Your task to perform on an android device: Search for vegetarian restaurants on Maps Image 0: 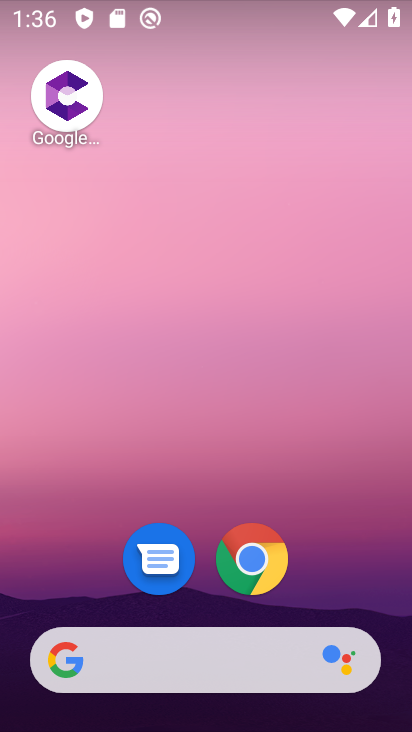
Step 0: drag from (393, 674) to (386, 251)
Your task to perform on an android device: Search for vegetarian restaurants on Maps Image 1: 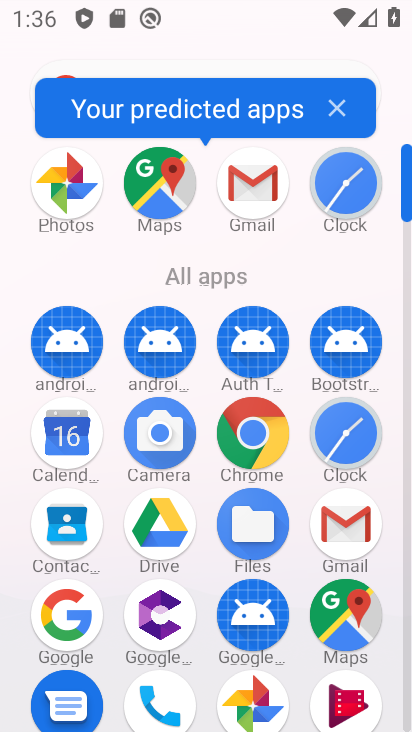
Step 1: click (350, 618)
Your task to perform on an android device: Search for vegetarian restaurants on Maps Image 2: 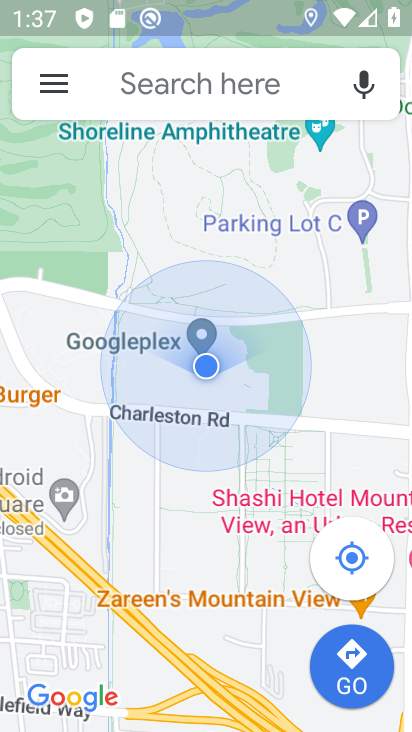
Step 2: click (199, 88)
Your task to perform on an android device: Search for vegetarian restaurants on Maps Image 3: 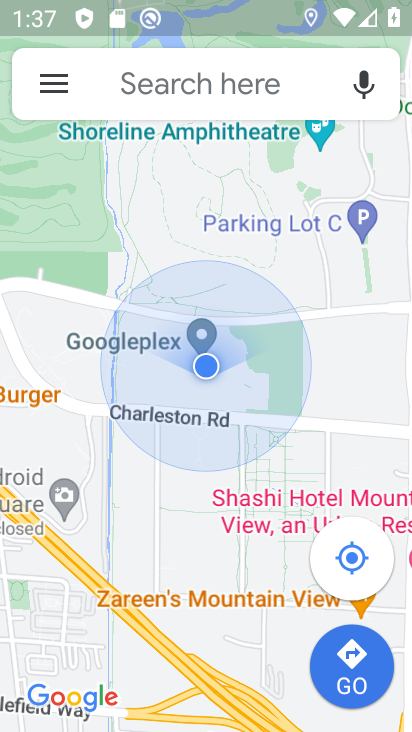
Step 3: click (199, 88)
Your task to perform on an android device: Search for vegetarian restaurants on Maps Image 4: 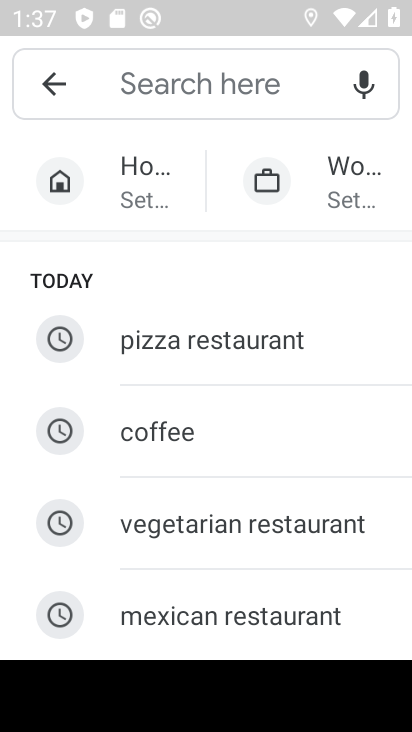
Step 4: type "vegetarian restaurants"
Your task to perform on an android device: Search for vegetarian restaurants on Maps Image 5: 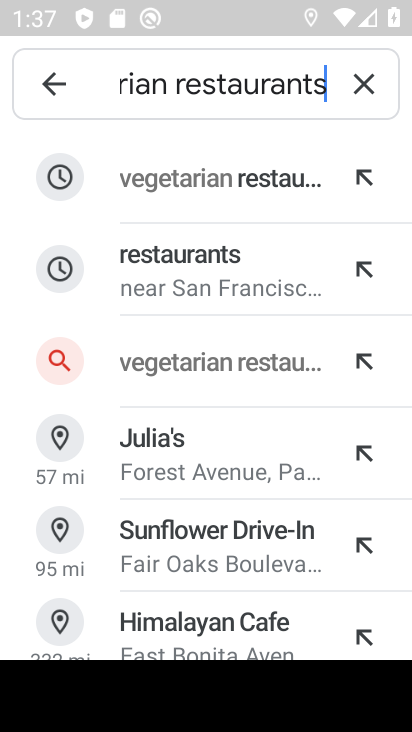
Step 5: click (224, 174)
Your task to perform on an android device: Search for vegetarian restaurants on Maps Image 6: 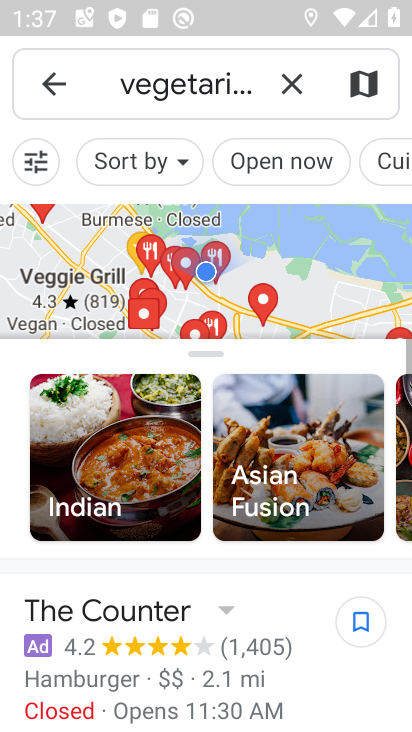
Step 6: task complete